Your task to perform on an android device: Open Reddit.com Image 0: 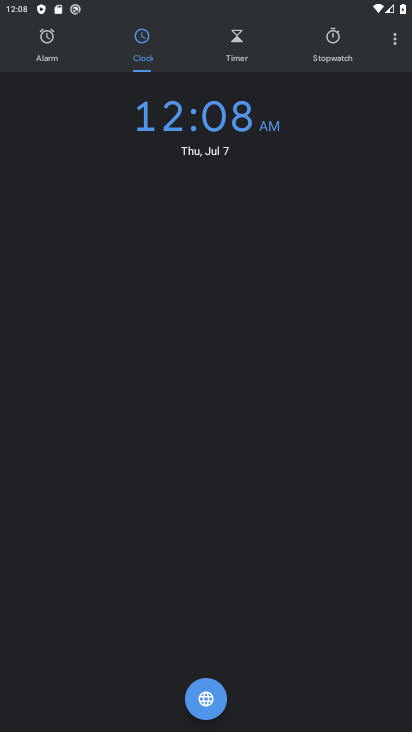
Step 0: press back button
Your task to perform on an android device: Open Reddit.com Image 1: 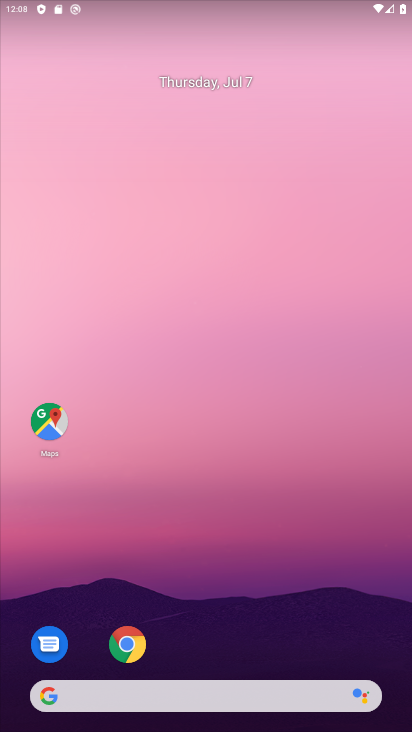
Step 1: drag from (399, 716) to (362, 102)
Your task to perform on an android device: Open Reddit.com Image 2: 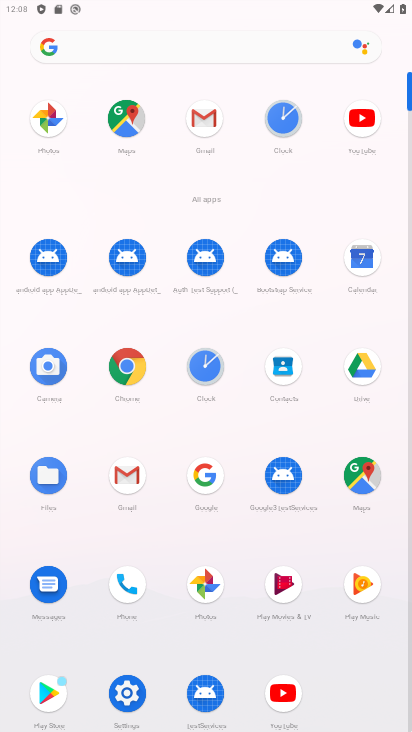
Step 2: click (125, 368)
Your task to perform on an android device: Open Reddit.com Image 3: 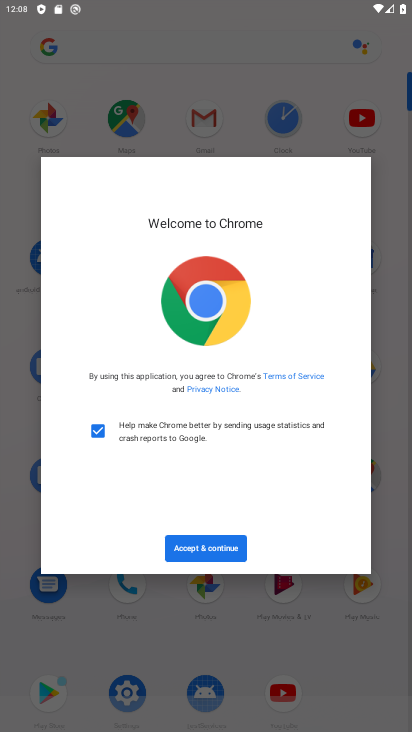
Step 3: click (240, 546)
Your task to perform on an android device: Open Reddit.com Image 4: 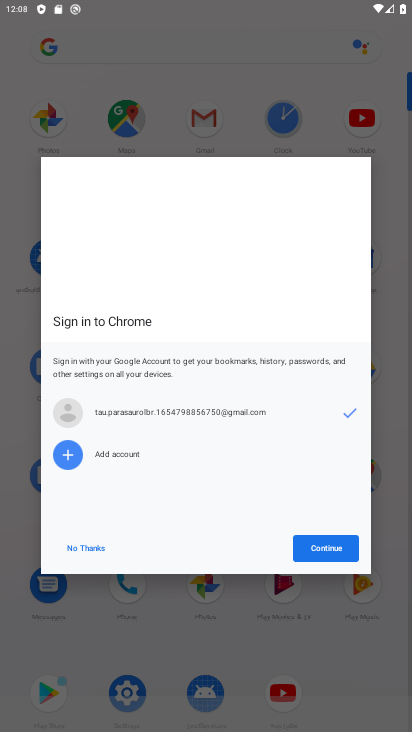
Step 4: click (303, 545)
Your task to perform on an android device: Open Reddit.com Image 5: 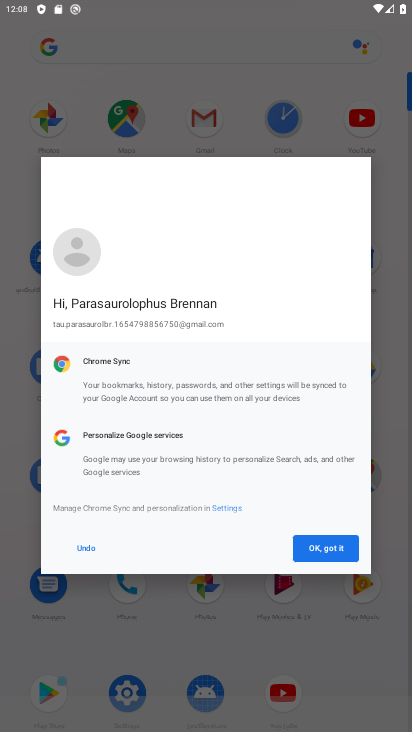
Step 5: click (303, 545)
Your task to perform on an android device: Open Reddit.com Image 6: 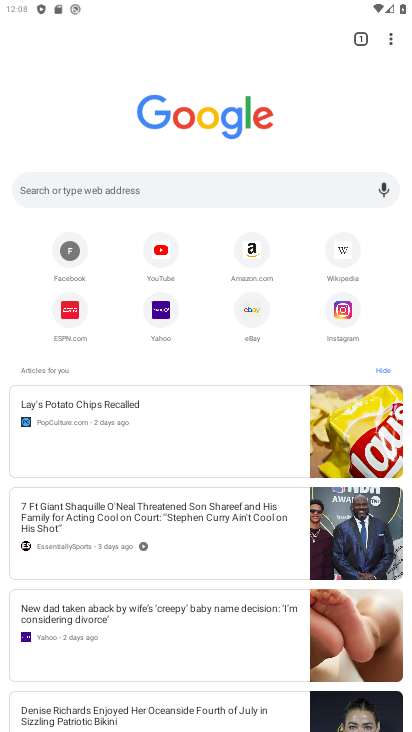
Step 6: click (174, 180)
Your task to perform on an android device: Open Reddit.com Image 7: 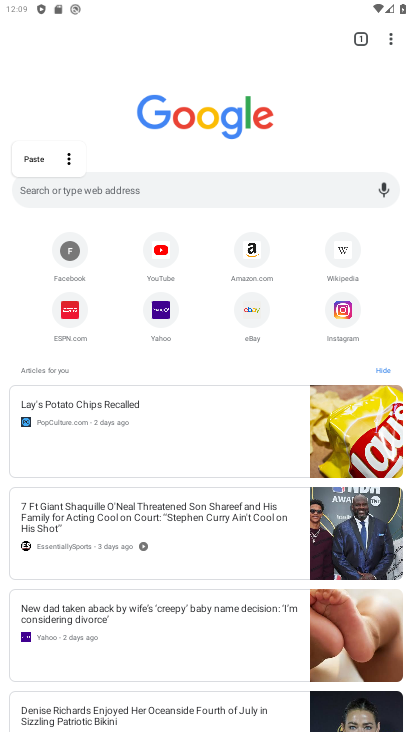
Step 7: click (120, 196)
Your task to perform on an android device: Open Reddit.com Image 8: 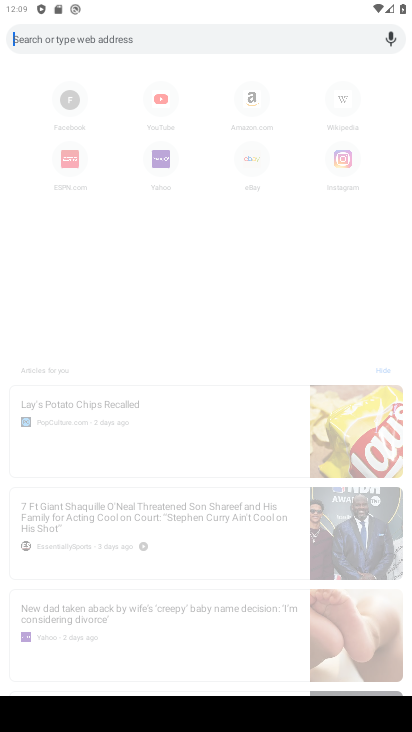
Step 8: type "Reddit.com"
Your task to perform on an android device: Open Reddit.com Image 9: 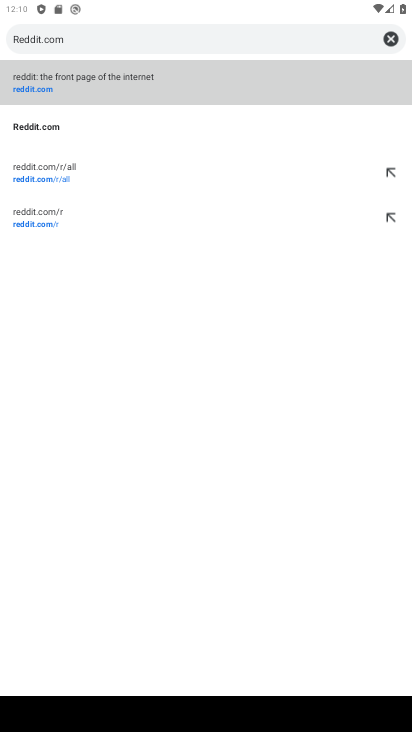
Step 9: click (40, 125)
Your task to perform on an android device: Open Reddit.com Image 10: 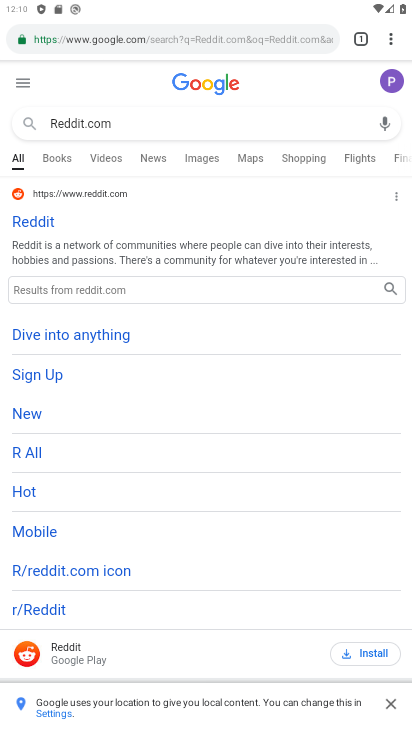
Step 10: task complete